Your task to perform on an android device: Open the stopwatch Image 0: 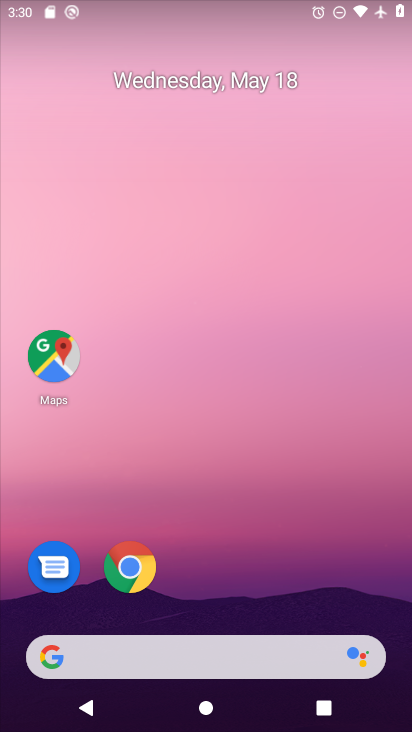
Step 0: drag from (191, 596) to (251, 278)
Your task to perform on an android device: Open the stopwatch Image 1: 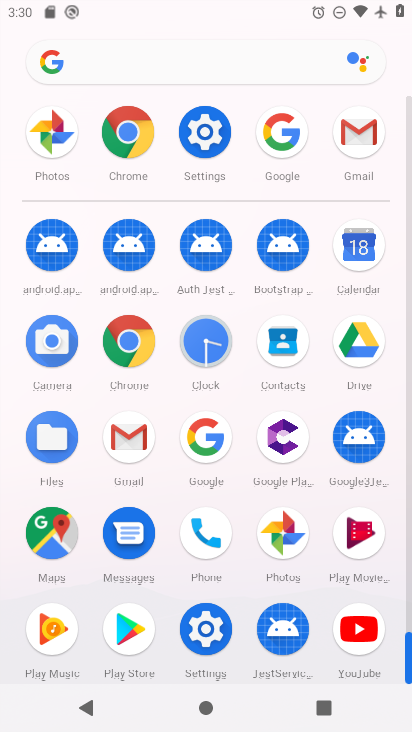
Step 1: click (202, 344)
Your task to perform on an android device: Open the stopwatch Image 2: 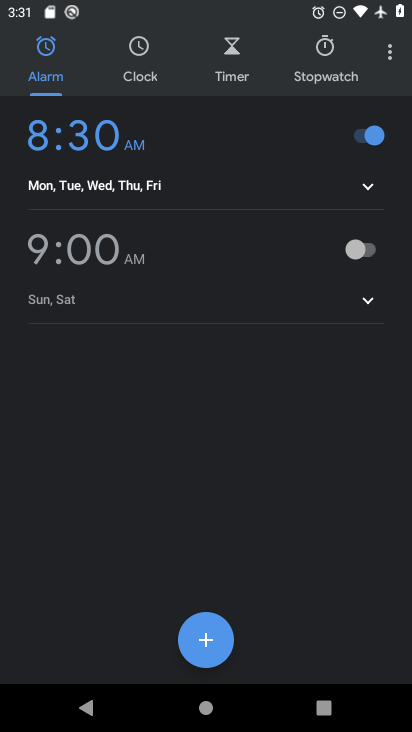
Step 2: click (321, 52)
Your task to perform on an android device: Open the stopwatch Image 3: 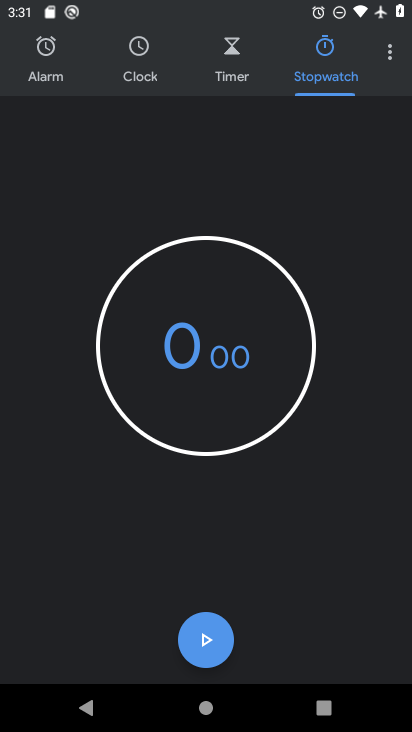
Step 3: task complete